Your task to perform on an android device: Open display settings Image 0: 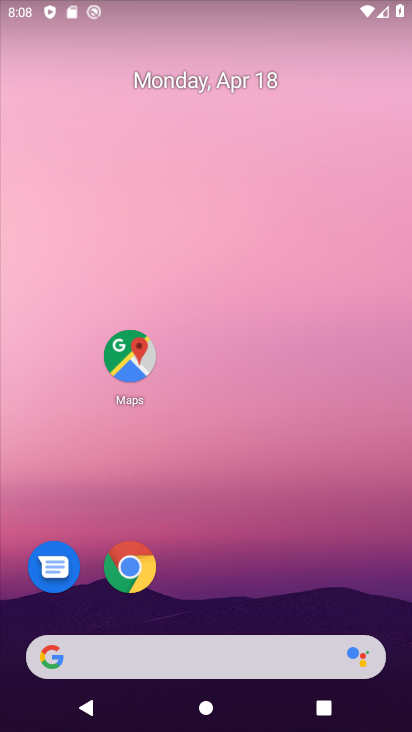
Step 0: click (257, 274)
Your task to perform on an android device: Open display settings Image 1: 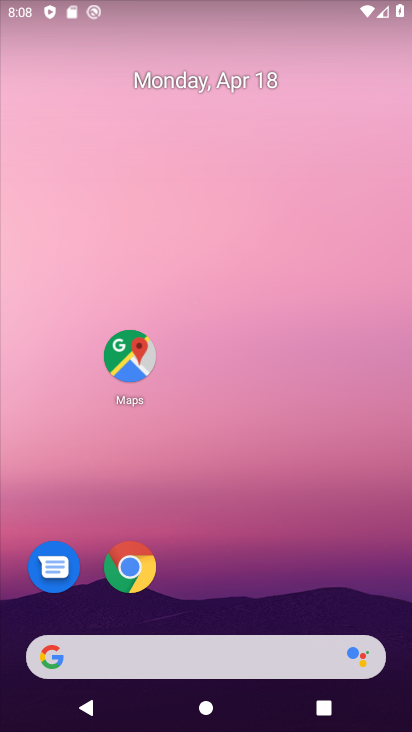
Step 1: drag from (275, 670) to (399, 39)
Your task to perform on an android device: Open display settings Image 2: 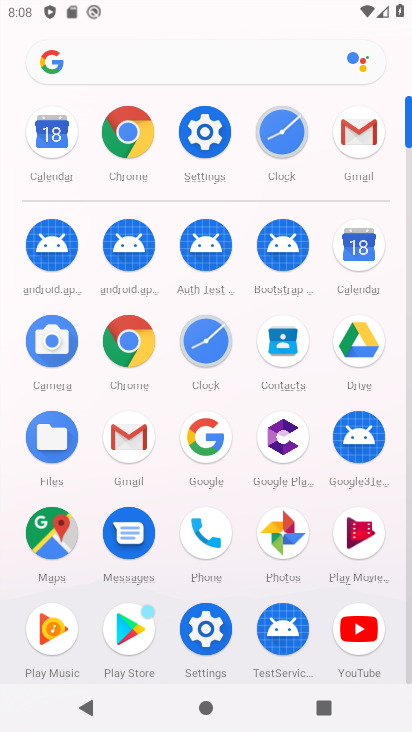
Step 2: click (198, 614)
Your task to perform on an android device: Open display settings Image 3: 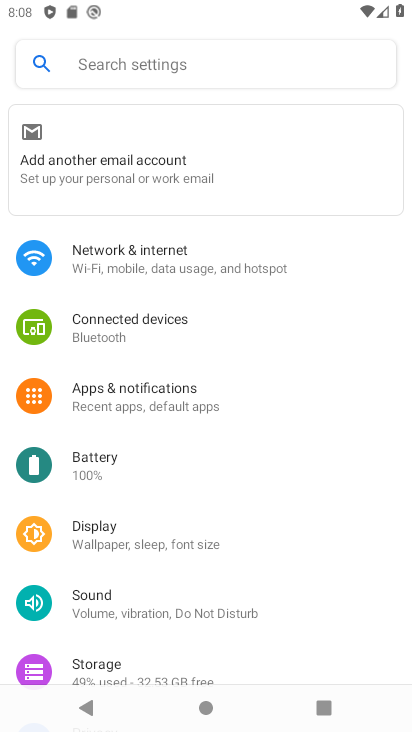
Step 3: click (100, 549)
Your task to perform on an android device: Open display settings Image 4: 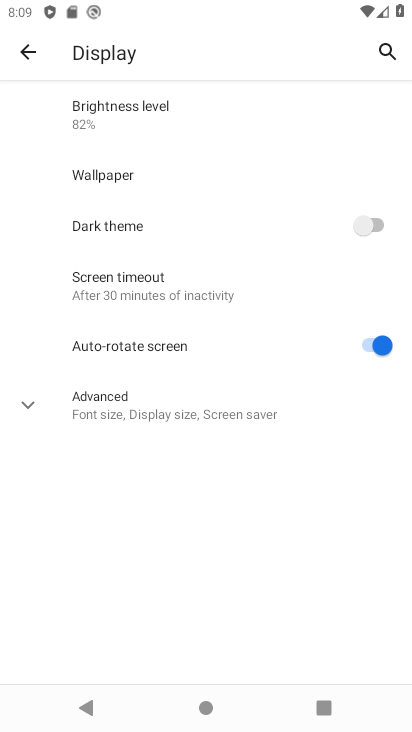
Step 4: click (34, 422)
Your task to perform on an android device: Open display settings Image 5: 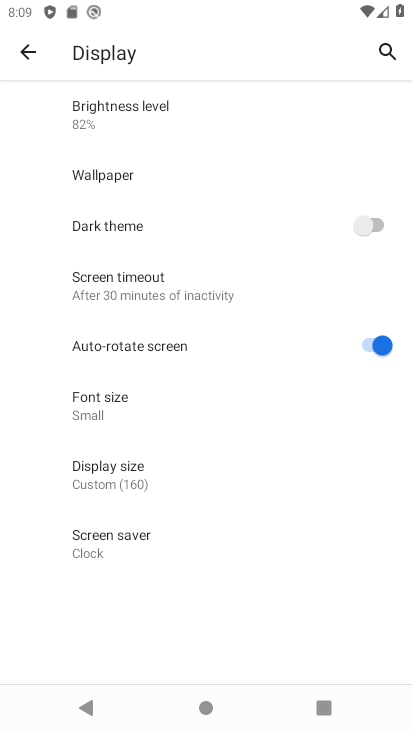
Step 5: task complete